Your task to perform on an android device: clear all cookies in the chrome app Image 0: 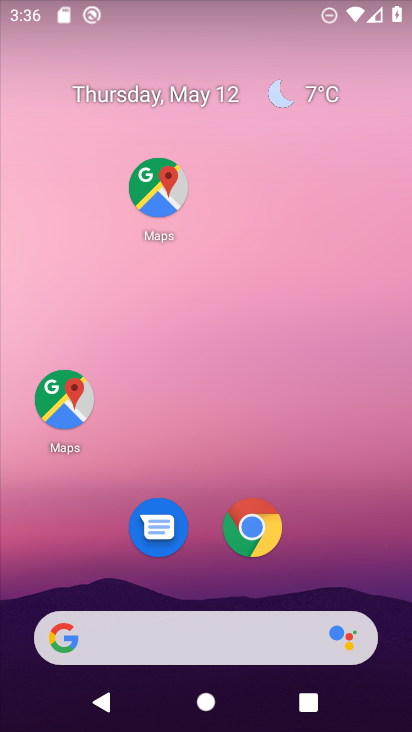
Step 0: click (236, 535)
Your task to perform on an android device: clear all cookies in the chrome app Image 1: 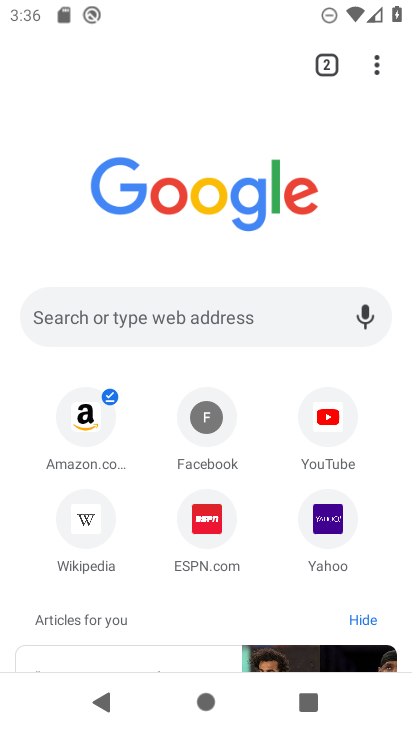
Step 1: click (372, 68)
Your task to perform on an android device: clear all cookies in the chrome app Image 2: 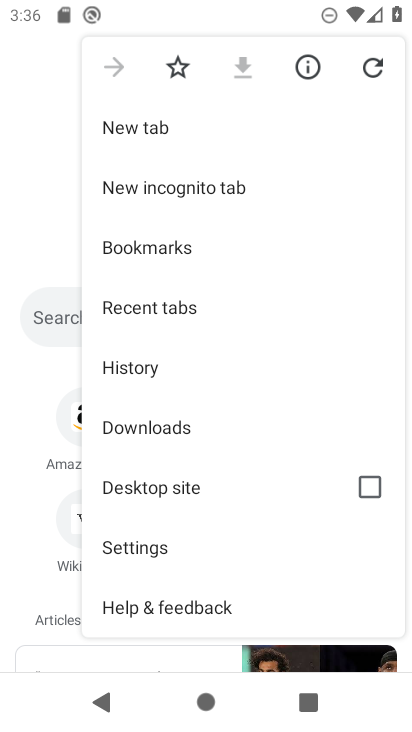
Step 2: click (150, 544)
Your task to perform on an android device: clear all cookies in the chrome app Image 3: 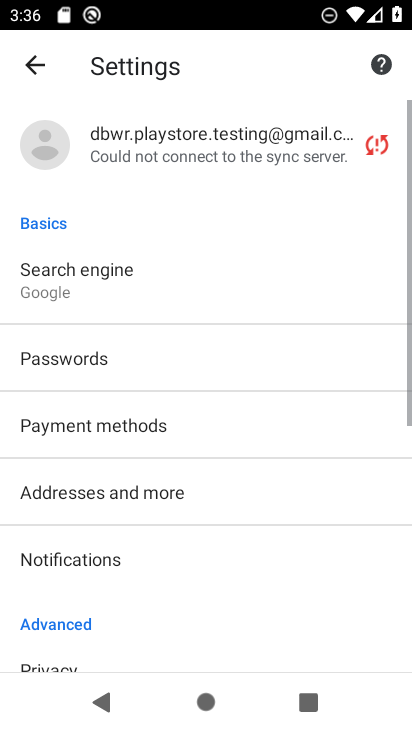
Step 3: drag from (194, 552) to (183, 161)
Your task to perform on an android device: clear all cookies in the chrome app Image 4: 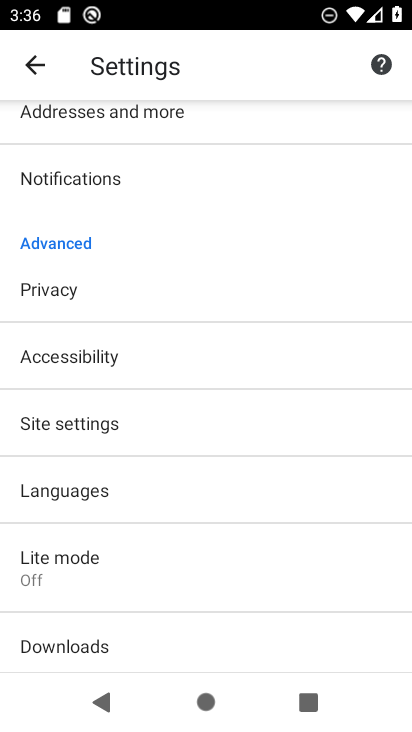
Step 4: click (60, 291)
Your task to perform on an android device: clear all cookies in the chrome app Image 5: 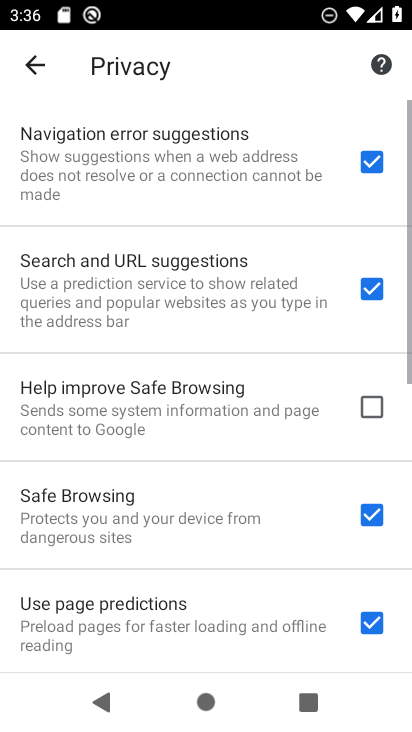
Step 5: drag from (222, 552) to (151, 145)
Your task to perform on an android device: clear all cookies in the chrome app Image 6: 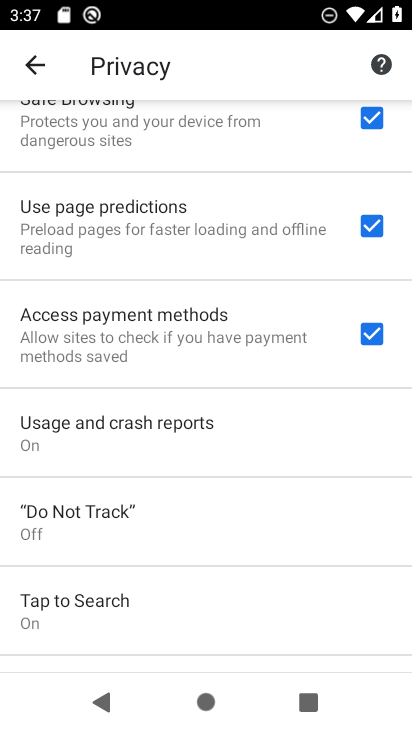
Step 6: drag from (164, 620) to (111, 147)
Your task to perform on an android device: clear all cookies in the chrome app Image 7: 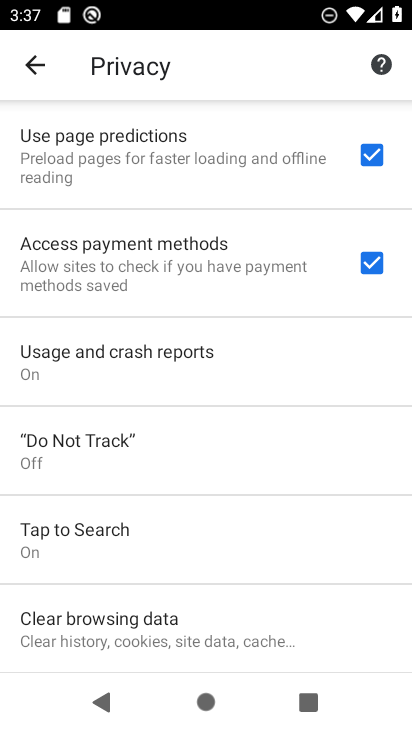
Step 7: click (154, 634)
Your task to perform on an android device: clear all cookies in the chrome app Image 8: 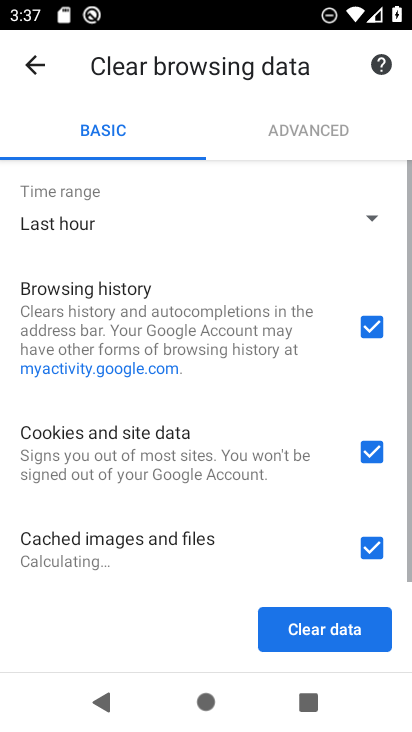
Step 8: drag from (154, 633) to (154, 361)
Your task to perform on an android device: clear all cookies in the chrome app Image 9: 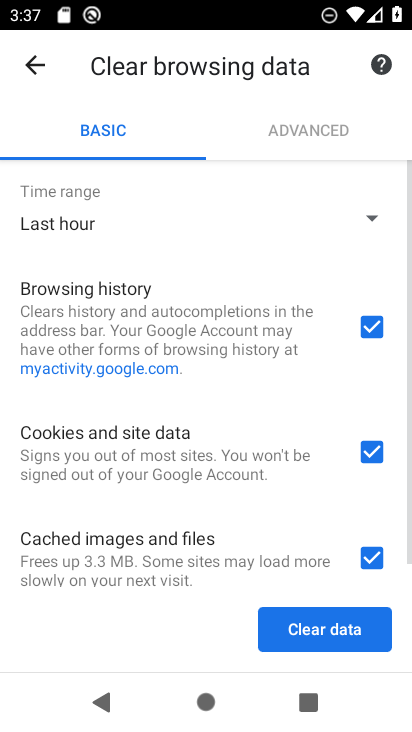
Step 9: click (326, 640)
Your task to perform on an android device: clear all cookies in the chrome app Image 10: 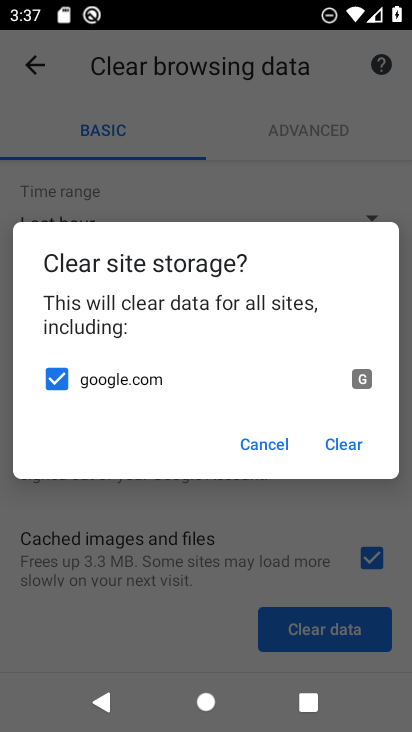
Step 10: click (334, 436)
Your task to perform on an android device: clear all cookies in the chrome app Image 11: 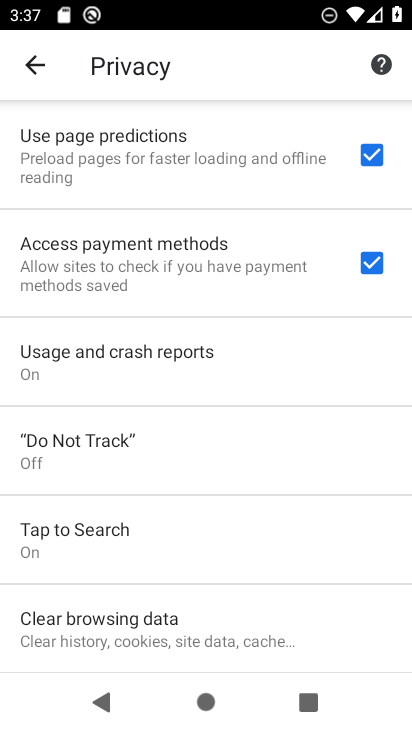
Step 11: task complete